Your task to perform on an android device: open app "Facebook Lite" Image 0: 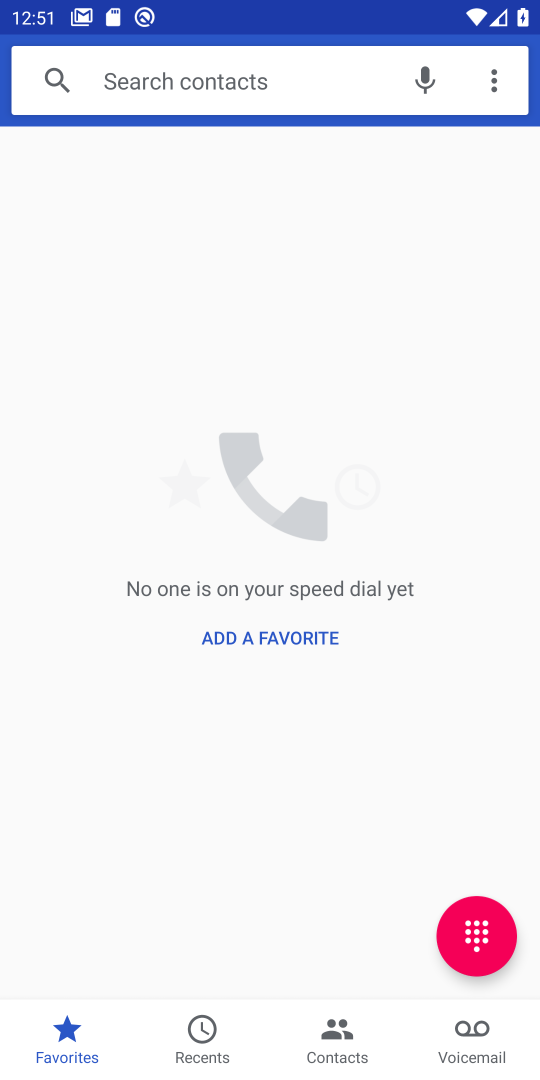
Step 0: press home button
Your task to perform on an android device: open app "Facebook Lite" Image 1: 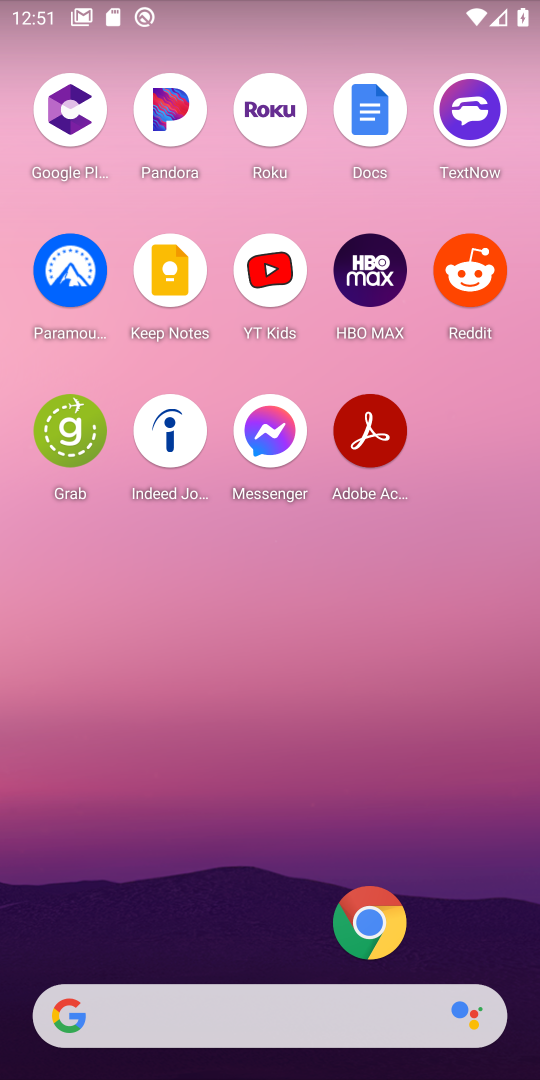
Step 1: drag from (227, 786) to (283, 162)
Your task to perform on an android device: open app "Facebook Lite" Image 2: 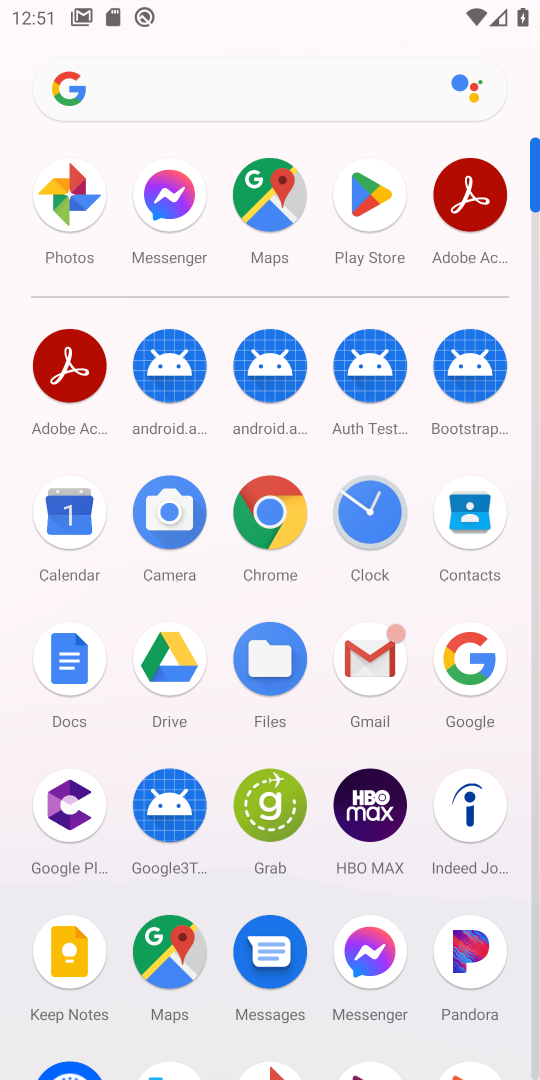
Step 2: click (403, 223)
Your task to perform on an android device: open app "Facebook Lite" Image 3: 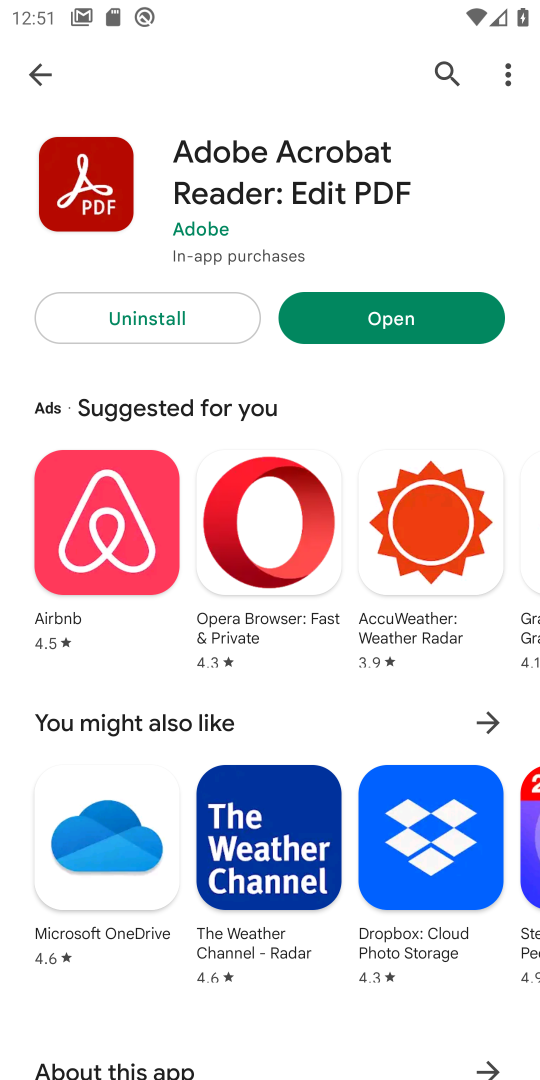
Step 3: click (445, 70)
Your task to perform on an android device: open app "Facebook Lite" Image 4: 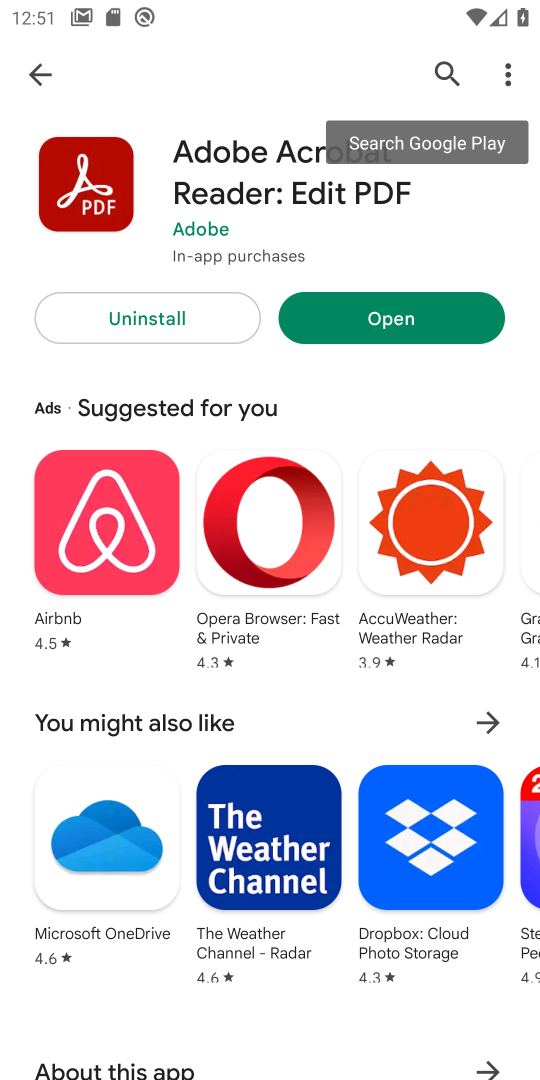
Step 4: click (455, 75)
Your task to perform on an android device: open app "Facebook Lite" Image 5: 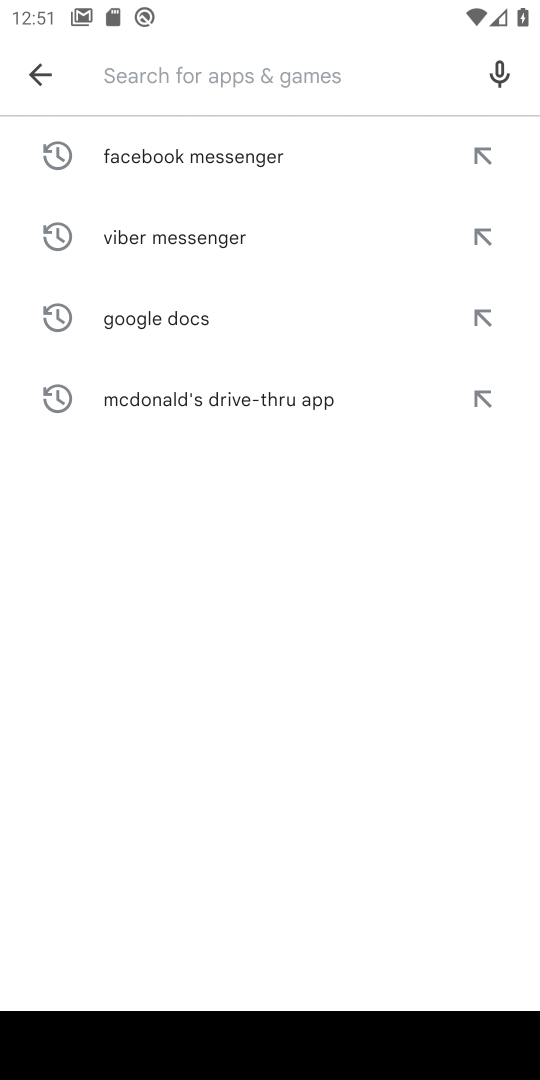
Step 5: type "Facebook Lite"
Your task to perform on an android device: open app "Facebook Lite" Image 6: 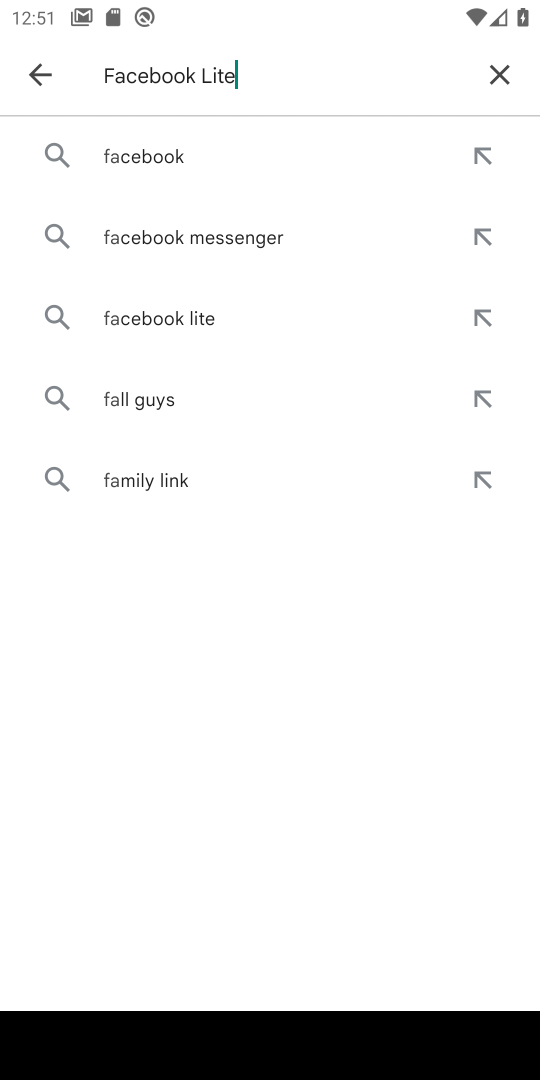
Step 6: type ""
Your task to perform on an android device: open app "Facebook Lite" Image 7: 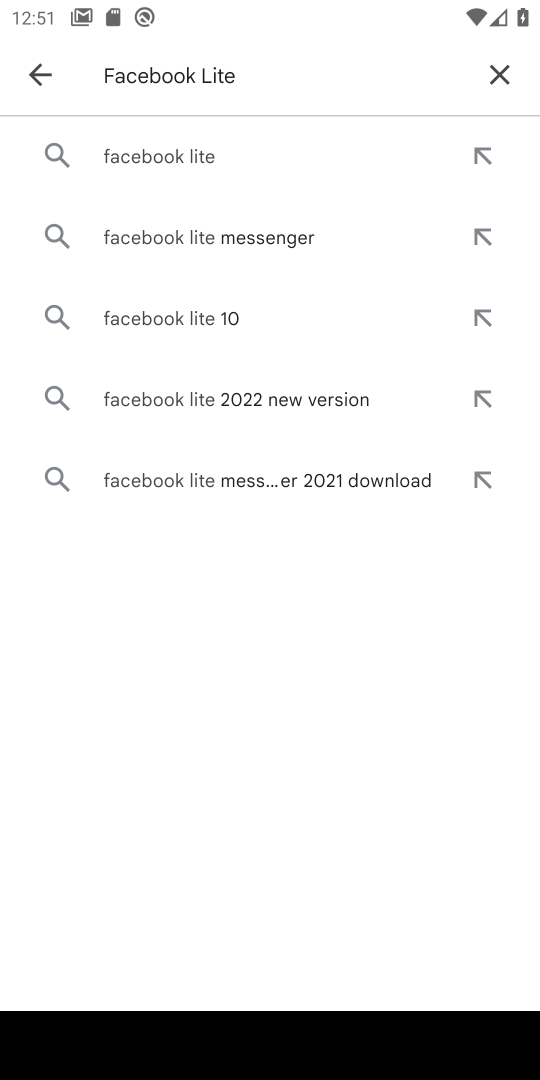
Step 7: click (180, 171)
Your task to perform on an android device: open app "Facebook Lite" Image 8: 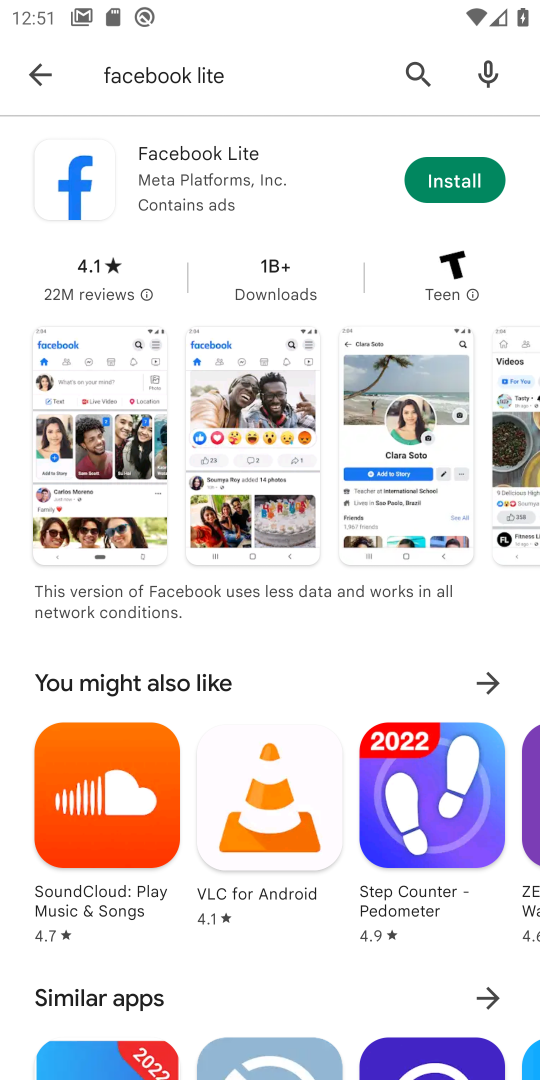
Step 8: task complete